Your task to perform on an android device: Open privacy settings Image 0: 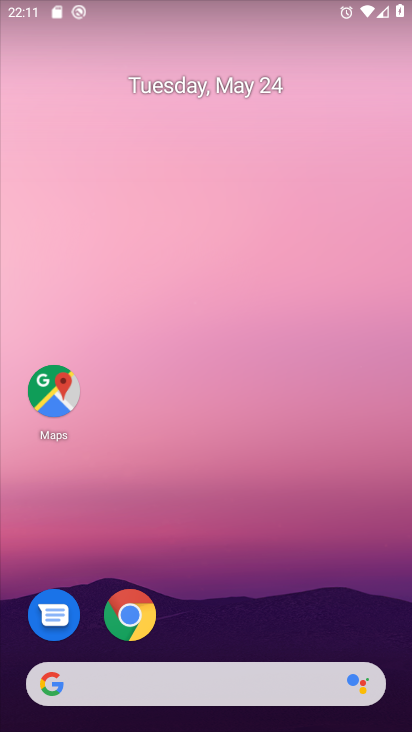
Step 0: drag from (260, 609) to (280, 134)
Your task to perform on an android device: Open privacy settings Image 1: 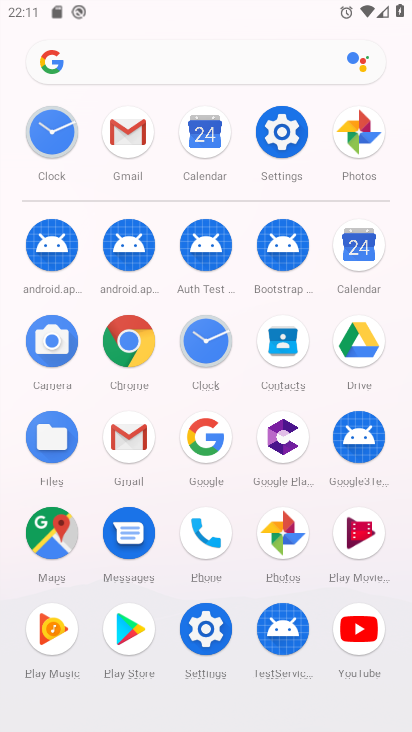
Step 1: click (278, 132)
Your task to perform on an android device: Open privacy settings Image 2: 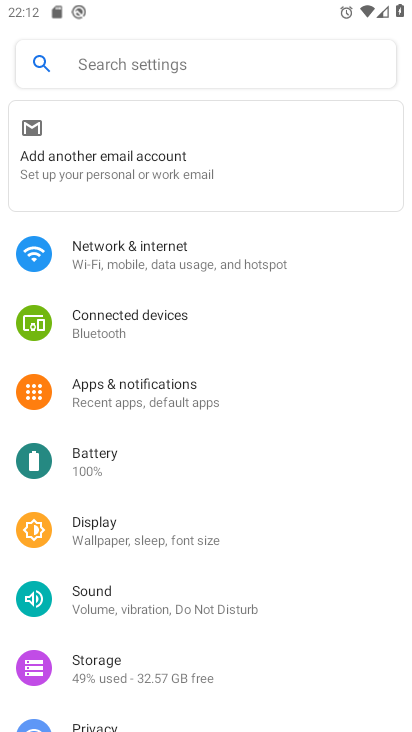
Step 2: drag from (198, 540) to (253, 217)
Your task to perform on an android device: Open privacy settings Image 3: 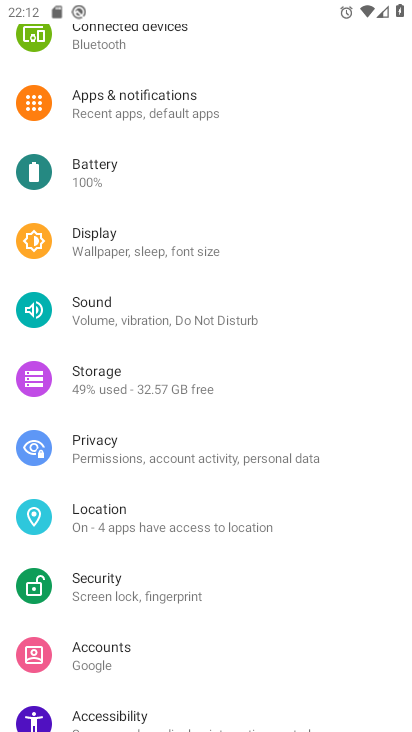
Step 3: click (132, 448)
Your task to perform on an android device: Open privacy settings Image 4: 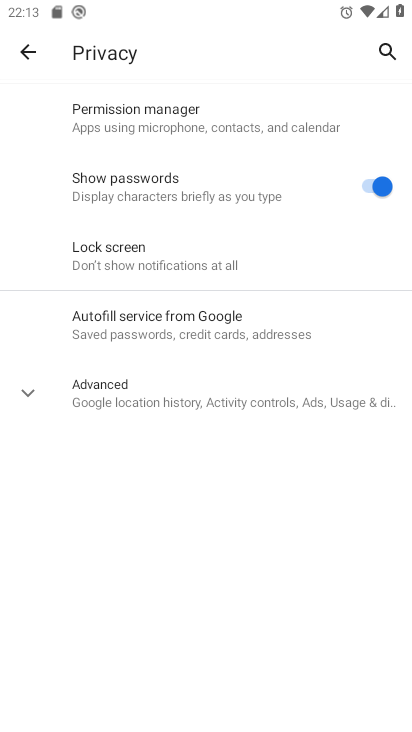
Step 4: task complete